Your task to perform on an android device: set the stopwatch Image 0: 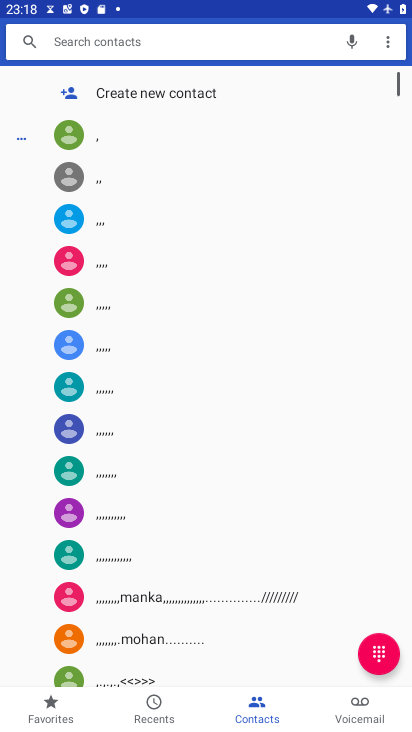
Step 0: press home button
Your task to perform on an android device: set the stopwatch Image 1: 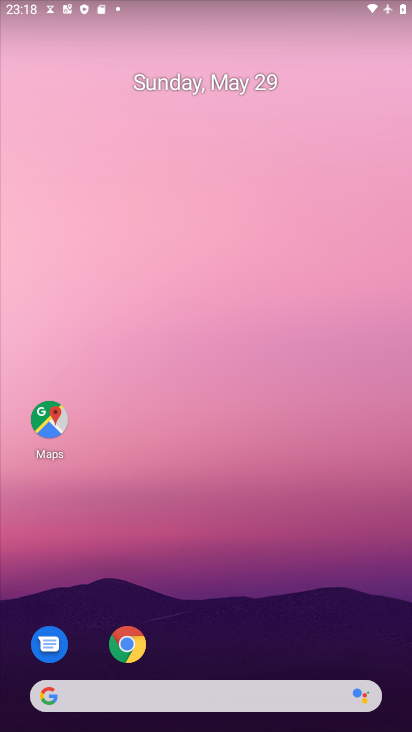
Step 1: drag from (230, 650) to (219, 186)
Your task to perform on an android device: set the stopwatch Image 2: 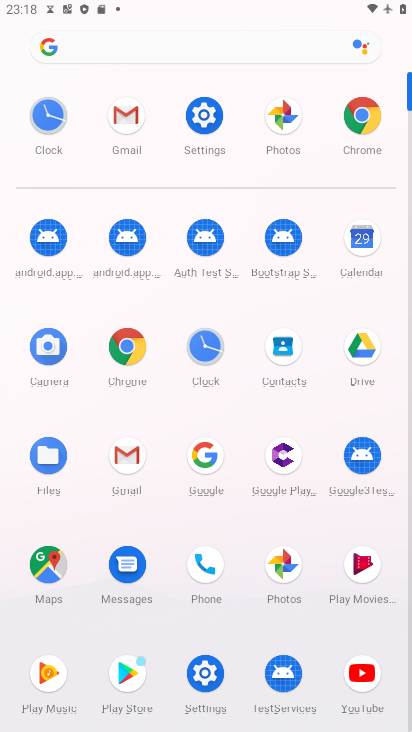
Step 2: click (207, 342)
Your task to perform on an android device: set the stopwatch Image 3: 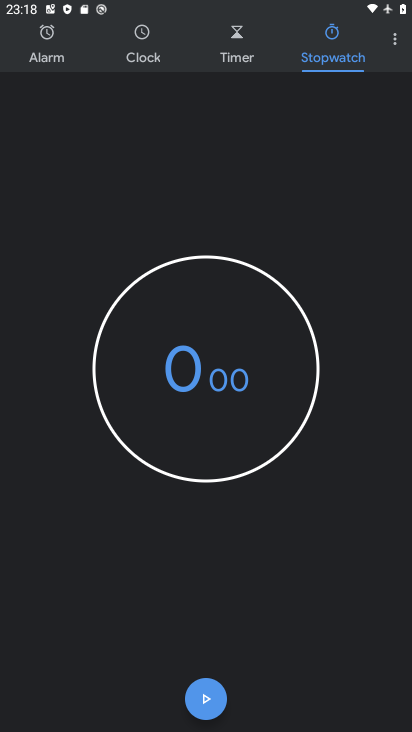
Step 3: task complete